Your task to perform on an android device: find snoozed emails in the gmail app Image 0: 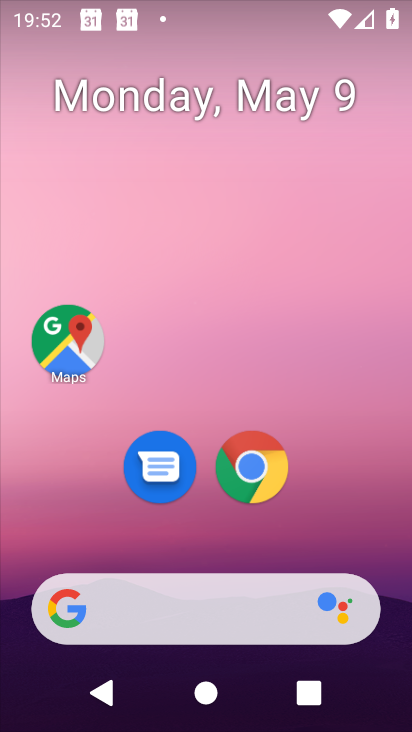
Step 0: drag from (330, 500) to (314, 79)
Your task to perform on an android device: find snoozed emails in the gmail app Image 1: 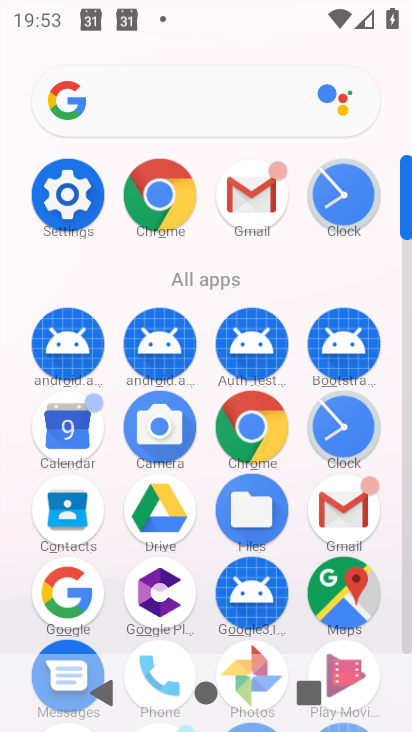
Step 1: click (347, 512)
Your task to perform on an android device: find snoozed emails in the gmail app Image 2: 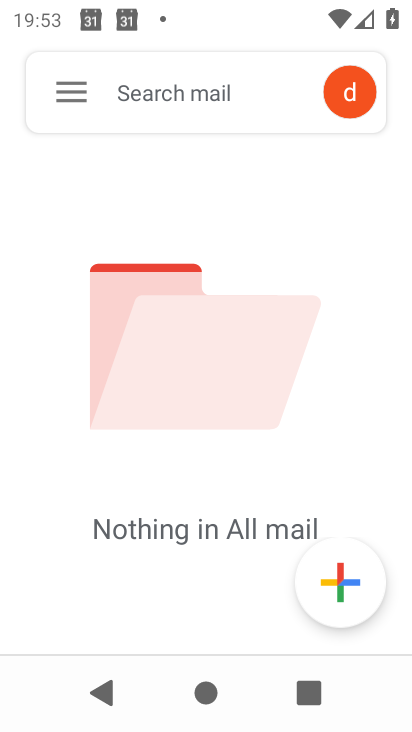
Step 2: click (74, 91)
Your task to perform on an android device: find snoozed emails in the gmail app Image 3: 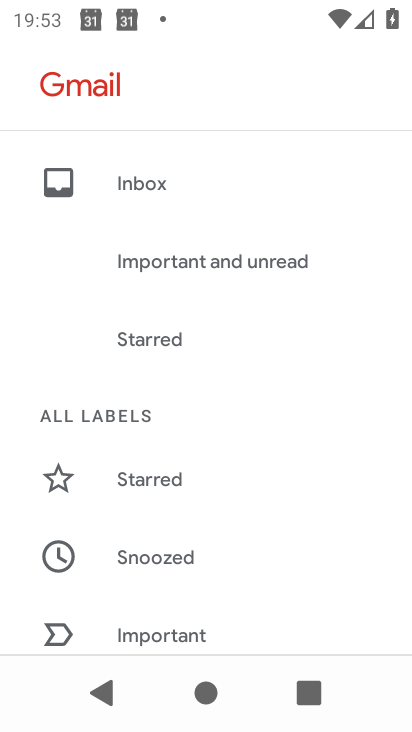
Step 3: click (178, 570)
Your task to perform on an android device: find snoozed emails in the gmail app Image 4: 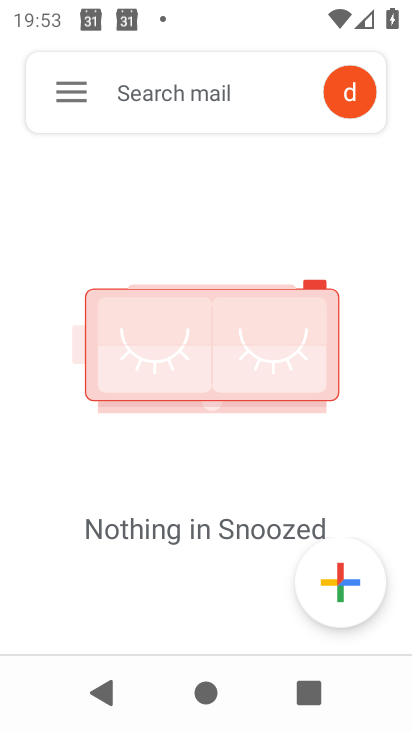
Step 4: task complete